Your task to perform on an android device: find which apps use the phone's location Image 0: 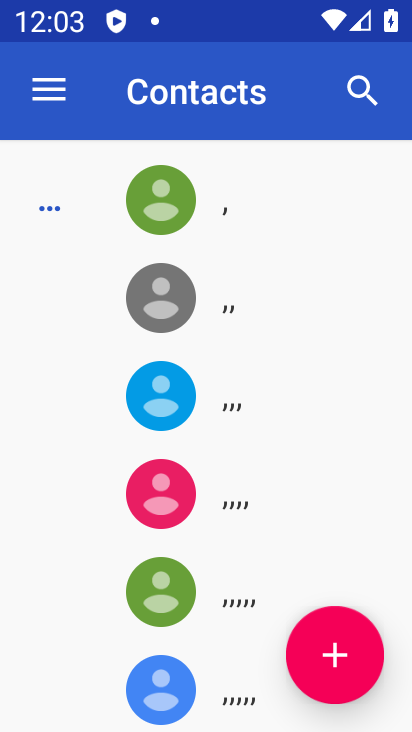
Step 0: press home button
Your task to perform on an android device: find which apps use the phone's location Image 1: 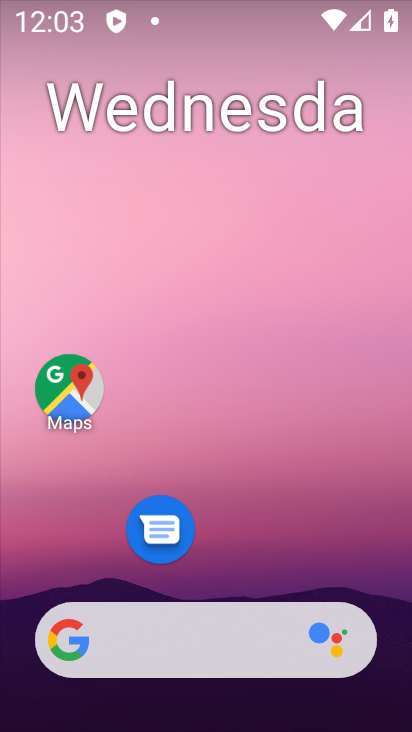
Step 1: drag from (221, 595) to (235, 4)
Your task to perform on an android device: find which apps use the phone's location Image 2: 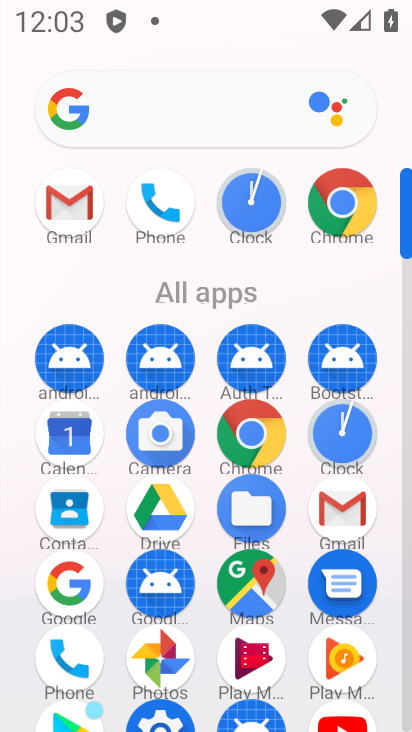
Step 2: click (166, 719)
Your task to perform on an android device: find which apps use the phone's location Image 3: 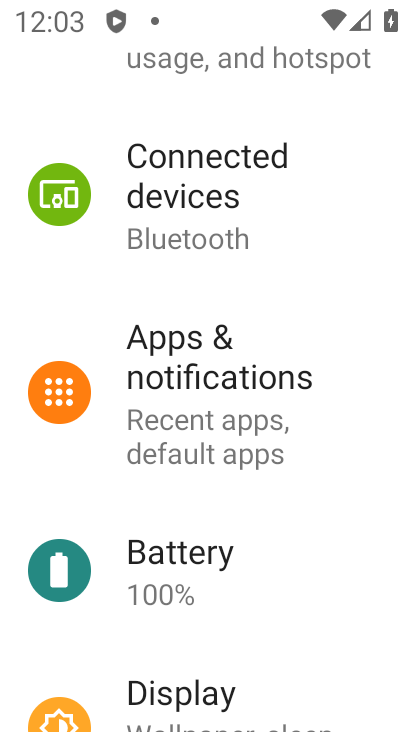
Step 3: drag from (207, 596) to (182, 170)
Your task to perform on an android device: find which apps use the phone's location Image 4: 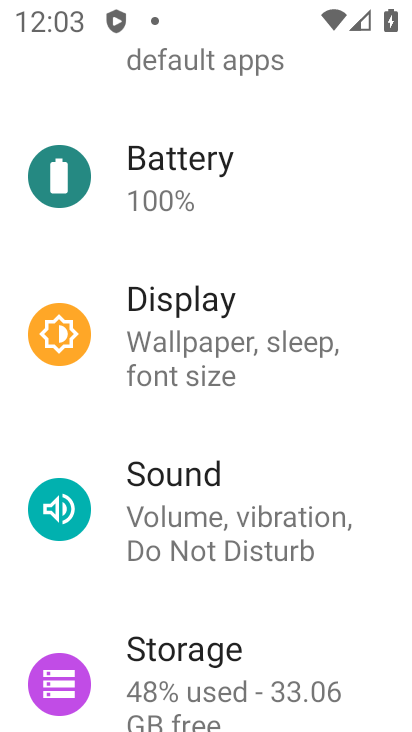
Step 4: drag from (192, 580) to (178, 94)
Your task to perform on an android device: find which apps use the phone's location Image 5: 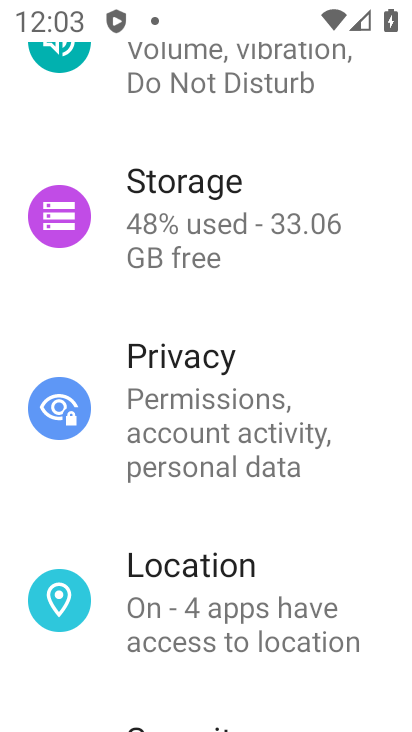
Step 5: click (140, 588)
Your task to perform on an android device: find which apps use the phone's location Image 6: 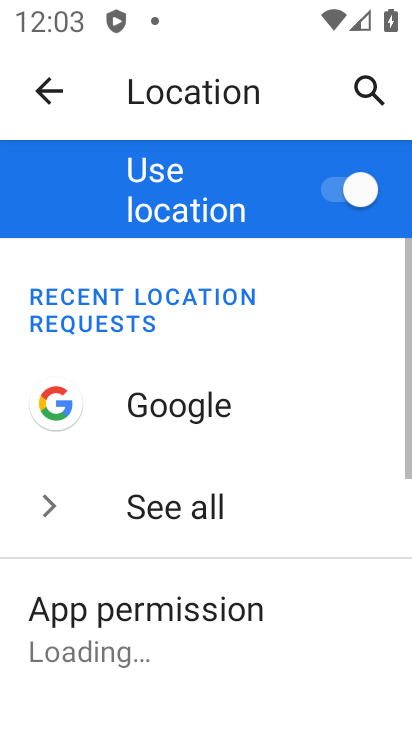
Step 6: click (254, 606)
Your task to perform on an android device: find which apps use the phone's location Image 7: 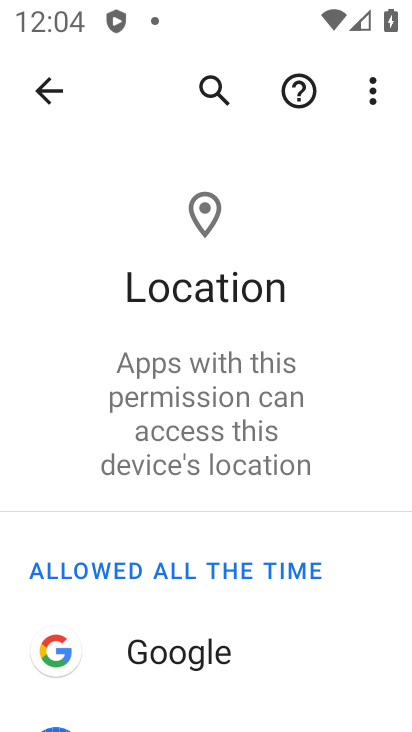
Step 7: task complete